Your task to perform on an android device: Go to Amazon Image 0: 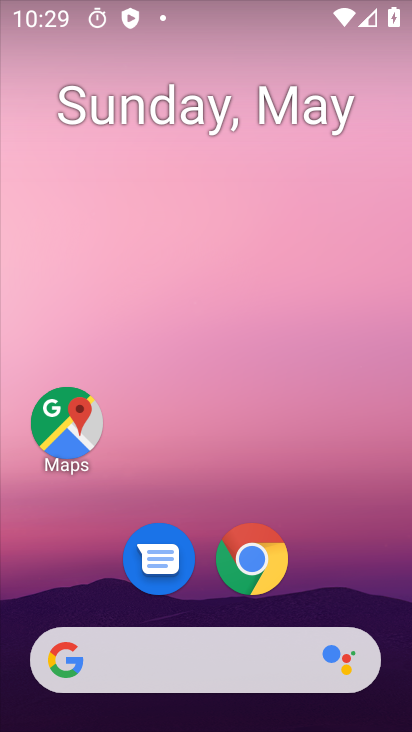
Step 0: drag from (390, 527) to (327, 126)
Your task to perform on an android device: Go to Amazon Image 1: 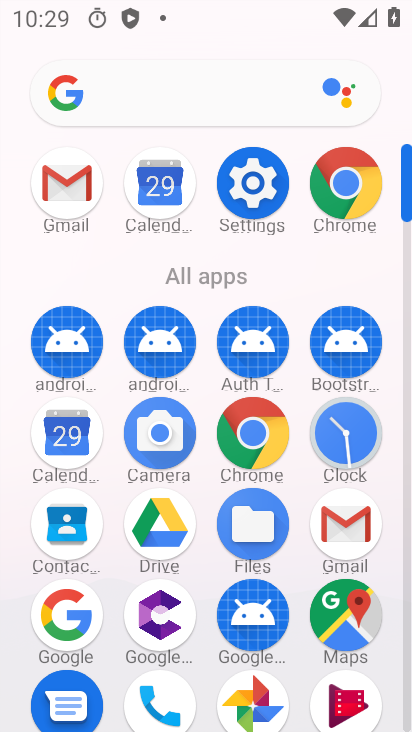
Step 1: drag from (100, 584) to (107, 396)
Your task to perform on an android device: Go to Amazon Image 2: 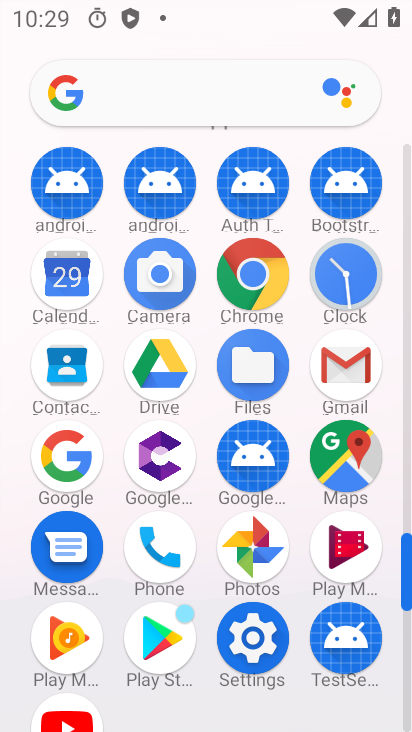
Step 2: drag from (233, 323) to (256, 634)
Your task to perform on an android device: Go to Amazon Image 3: 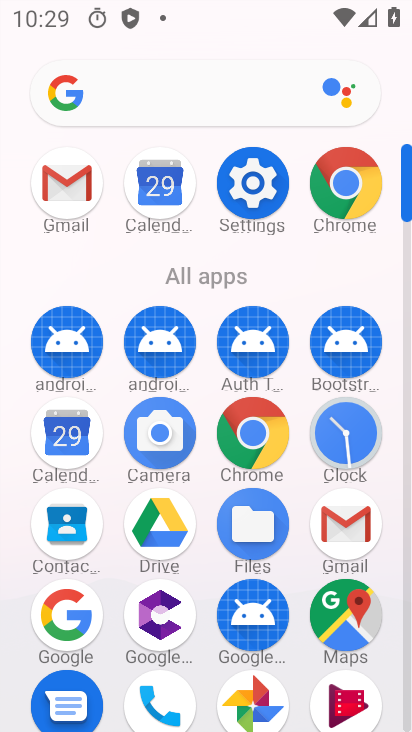
Step 3: click (262, 418)
Your task to perform on an android device: Go to Amazon Image 4: 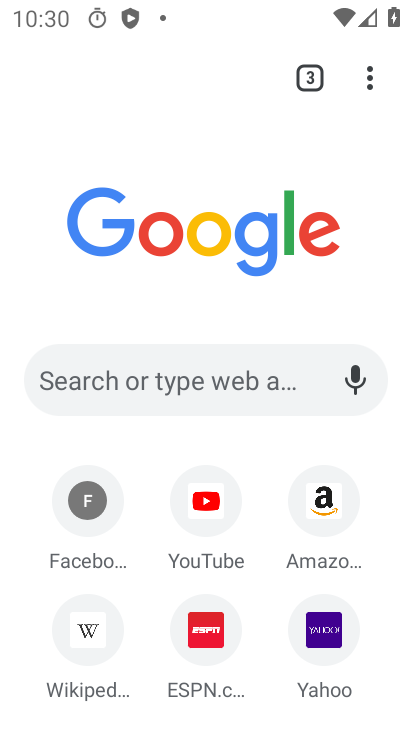
Step 4: click (329, 496)
Your task to perform on an android device: Go to Amazon Image 5: 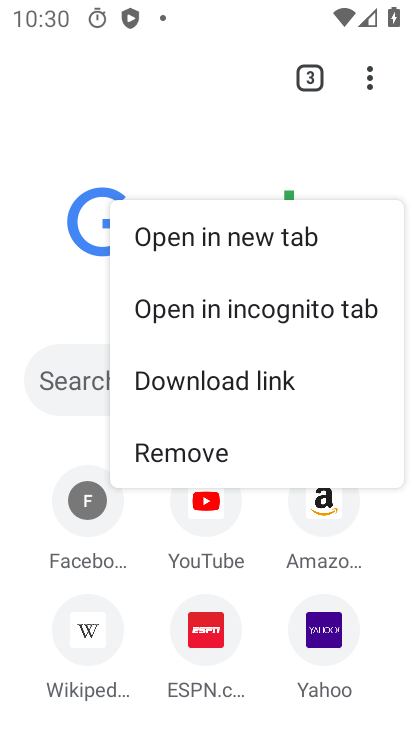
Step 5: click (329, 518)
Your task to perform on an android device: Go to Amazon Image 6: 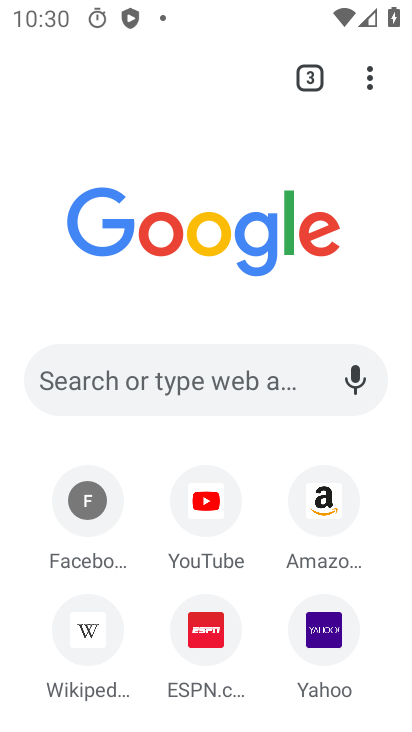
Step 6: click (316, 511)
Your task to perform on an android device: Go to Amazon Image 7: 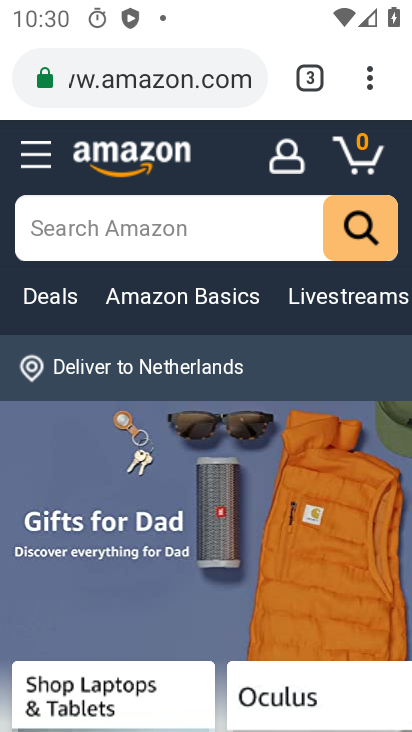
Step 7: task complete